Your task to perform on an android device: turn on data saver in the chrome app Image 0: 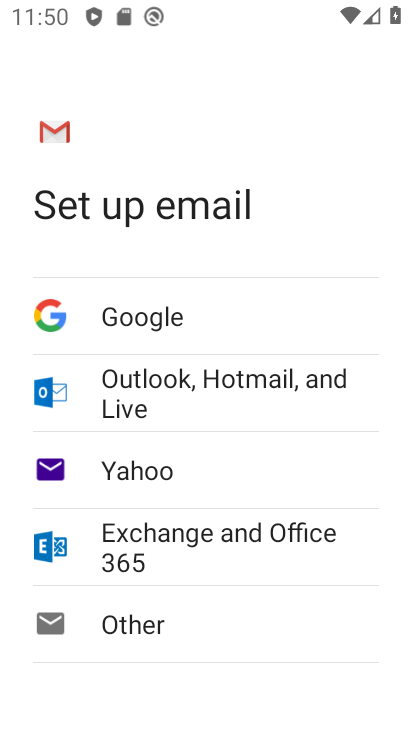
Step 0: press home button
Your task to perform on an android device: turn on data saver in the chrome app Image 1: 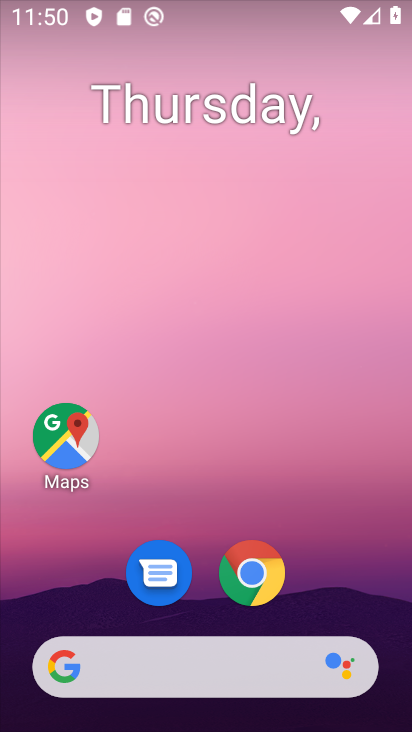
Step 1: click (244, 579)
Your task to perform on an android device: turn on data saver in the chrome app Image 2: 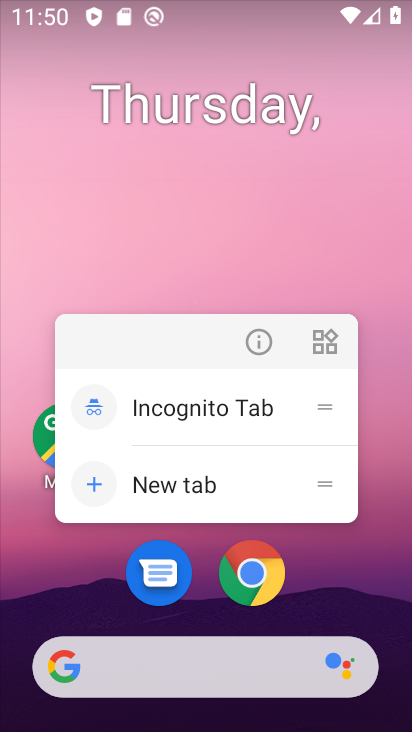
Step 2: click (254, 580)
Your task to perform on an android device: turn on data saver in the chrome app Image 3: 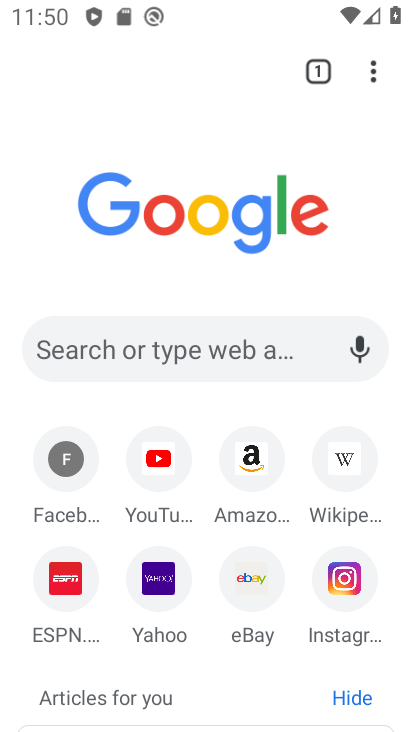
Step 3: click (369, 76)
Your task to perform on an android device: turn on data saver in the chrome app Image 4: 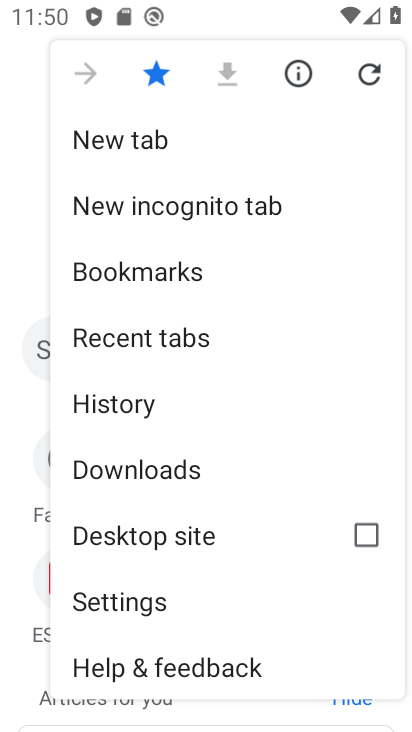
Step 4: click (153, 608)
Your task to perform on an android device: turn on data saver in the chrome app Image 5: 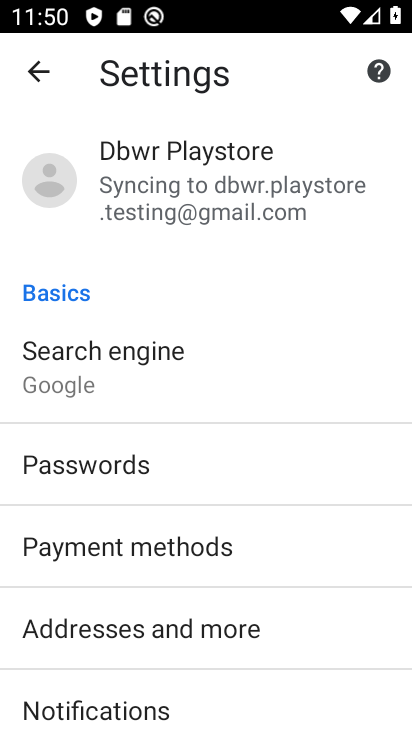
Step 5: drag from (270, 566) to (258, 97)
Your task to perform on an android device: turn on data saver in the chrome app Image 6: 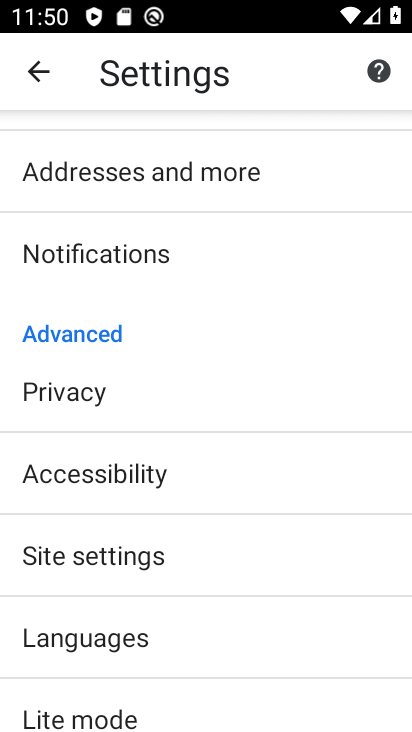
Step 6: click (132, 712)
Your task to perform on an android device: turn on data saver in the chrome app Image 7: 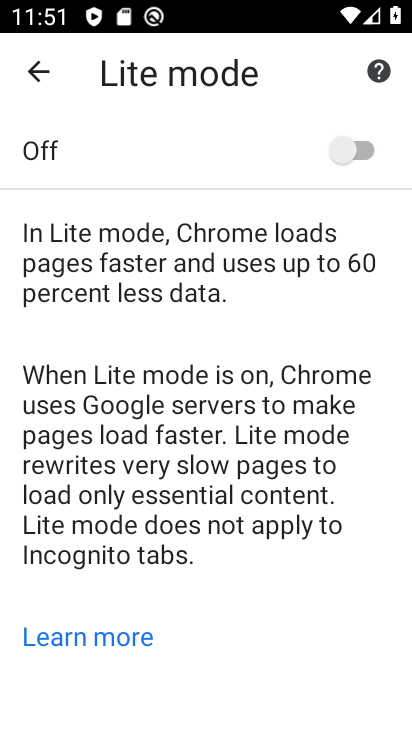
Step 7: click (363, 149)
Your task to perform on an android device: turn on data saver in the chrome app Image 8: 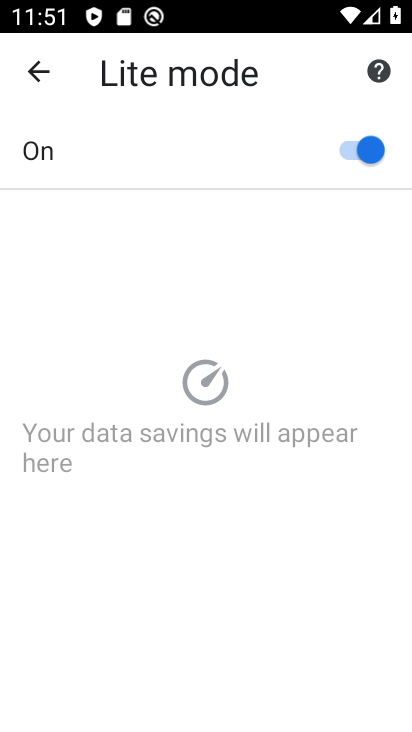
Step 8: task complete